Your task to perform on an android device: add a contact in the contacts app Image 0: 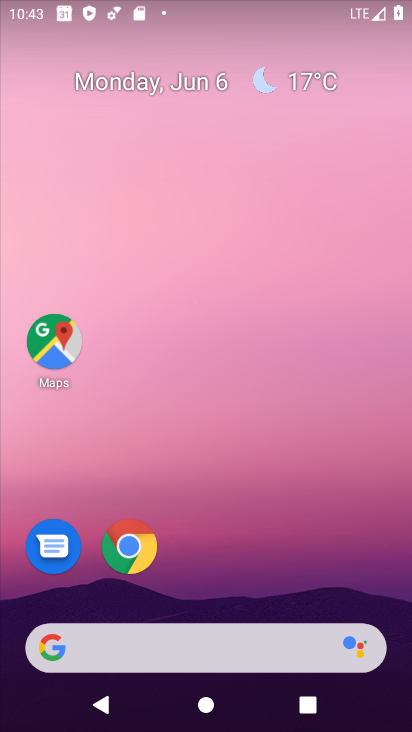
Step 0: drag from (268, 534) to (240, 116)
Your task to perform on an android device: add a contact in the contacts app Image 1: 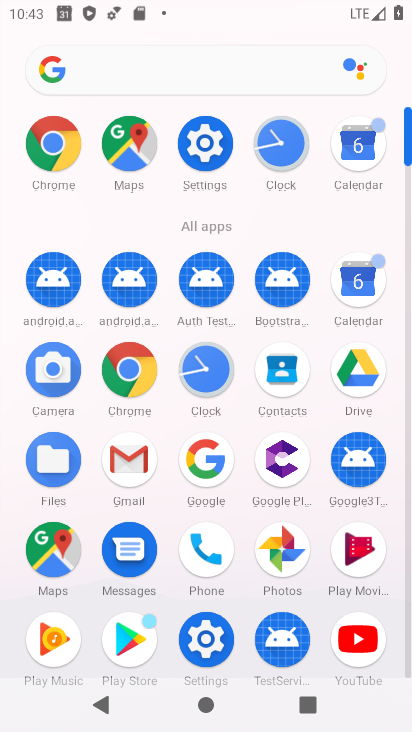
Step 1: click (276, 367)
Your task to perform on an android device: add a contact in the contacts app Image 2: 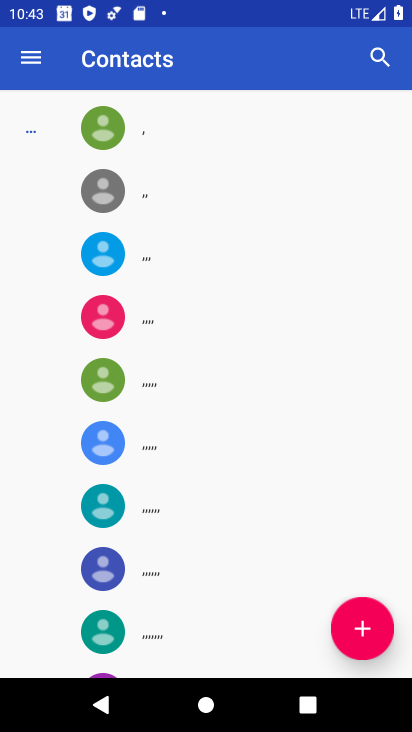
Step 2: click (374, 644)
Your task to perform on an android device: add a contact in the contacts app Image 3: 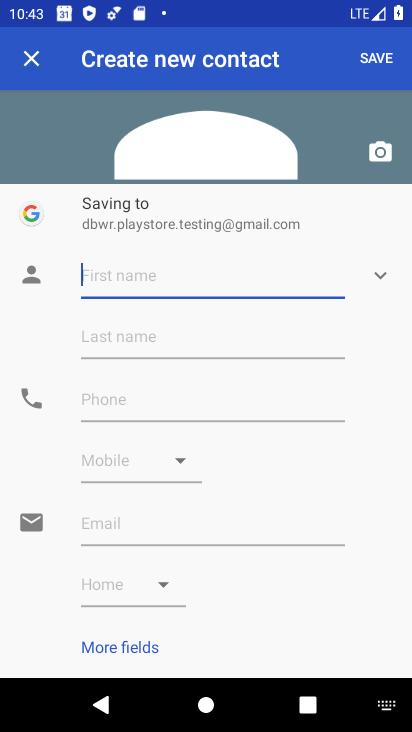
Step 3: type "no way"
Your task to perform on an android device: add a contact in the contacts app Image 4: 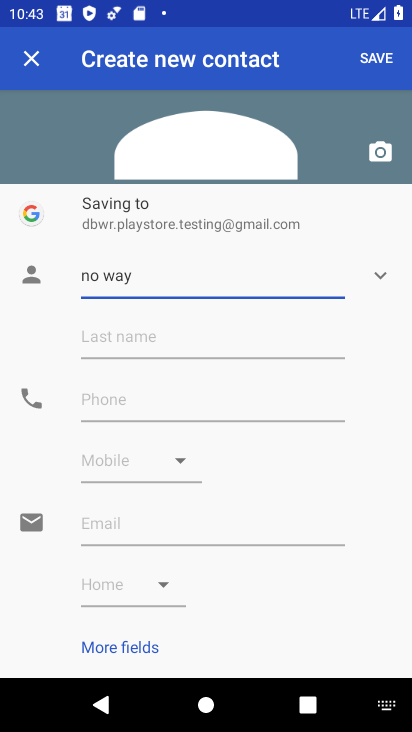
Step 4: click (369, 65)
Your task to perform on an android device: add a contact in the contacts app Image 5: 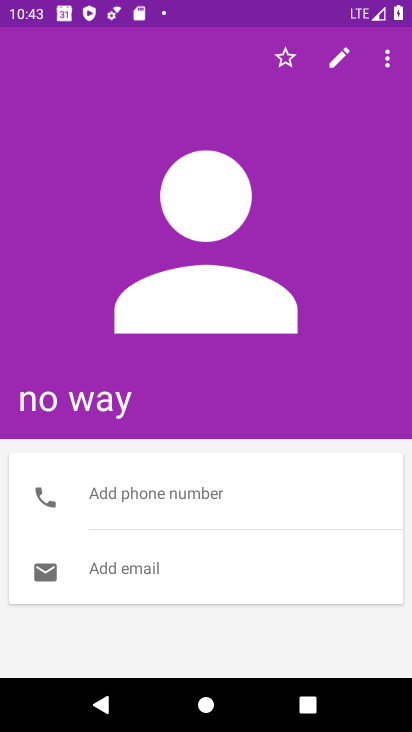
Step 5: task complete